Your task to perform on an android device: Go to wifi settings Image 0: 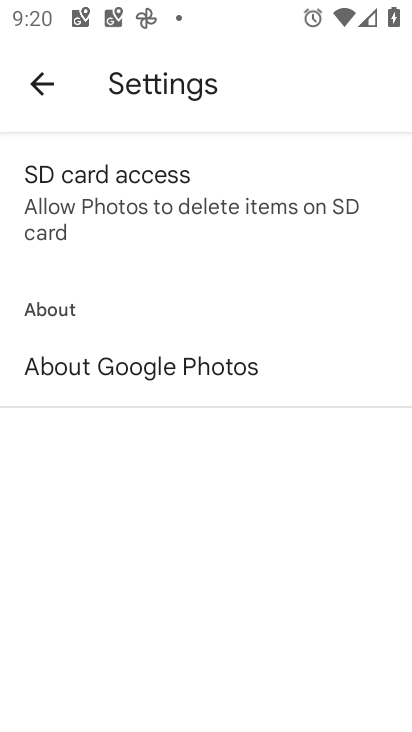
Step 0: press home button
Your task to perform on an android device: Go to wifi settings Image 1: 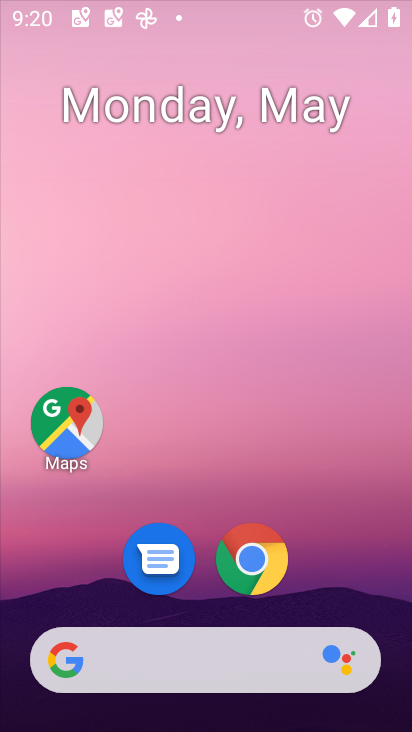
Step 1: drag from (375, 651) to (256, 56)
Your task to perform on an android device: Go to wifi settings Image 2: 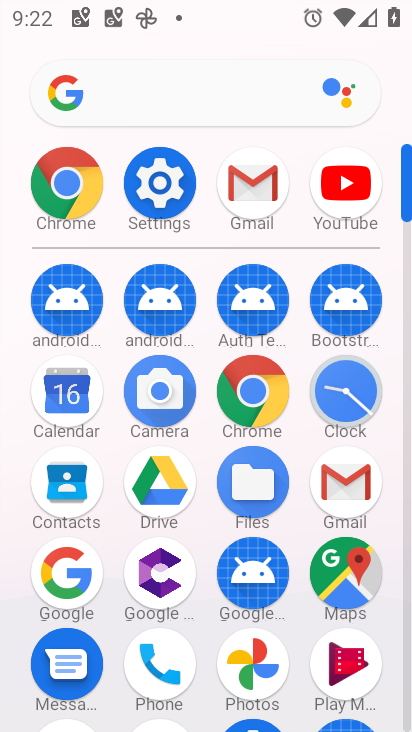
Step 2: click (155, 183)
Your task to perform on an android device: Go to wifi settings Image 3: 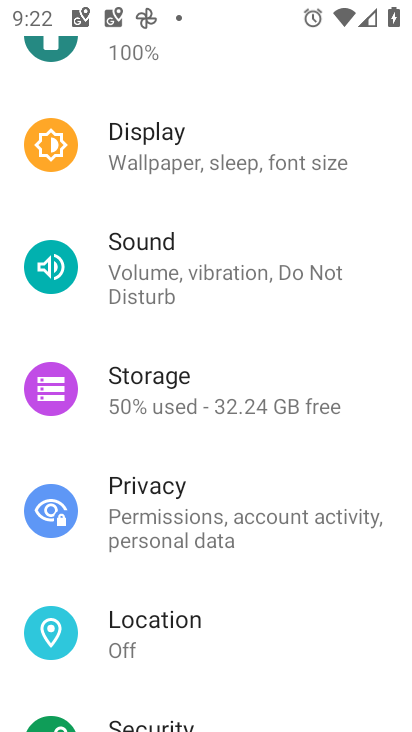
Step 3: drag from (155, 183) to (146, 647)
Your task to perform on an android device: Go to wifi settings Image 4: 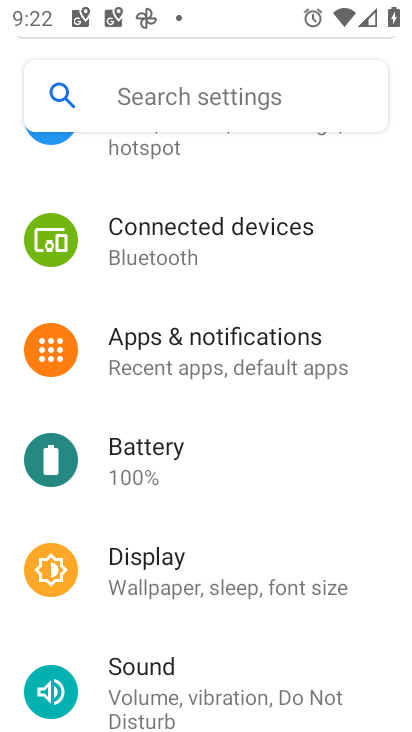
Step 4: drag from (142, 154) to (193, 691)
Your task to perform on an android device: Go to wifi settings Image 5: 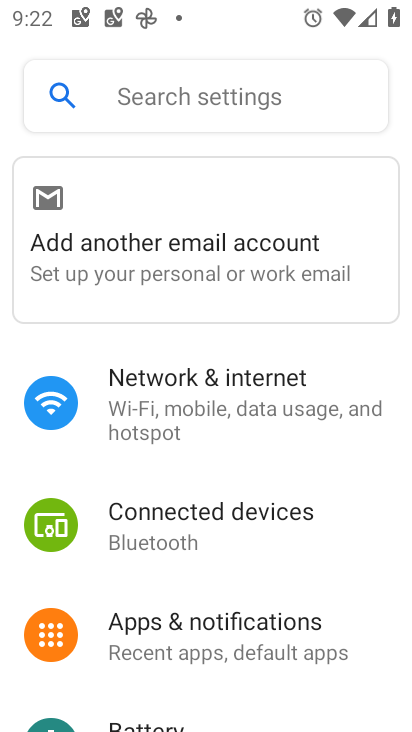
Step 5: click (190, 420)
Your task to perform on an android device: Go to wifi settings Image 6: 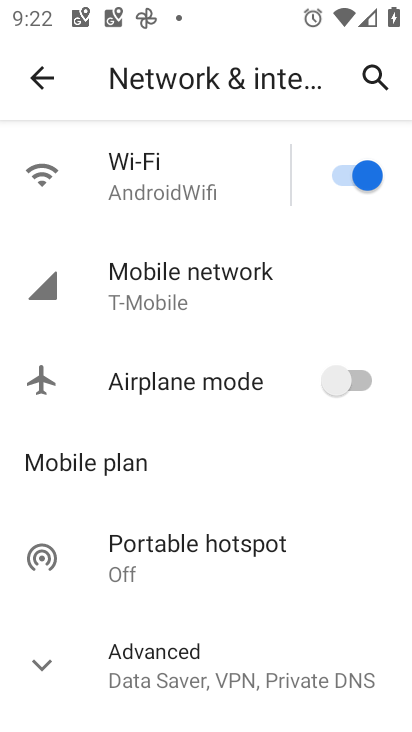
Step 6: click (146, 192)
Your task to perform on an android device: Go to wifi settings Image 7: 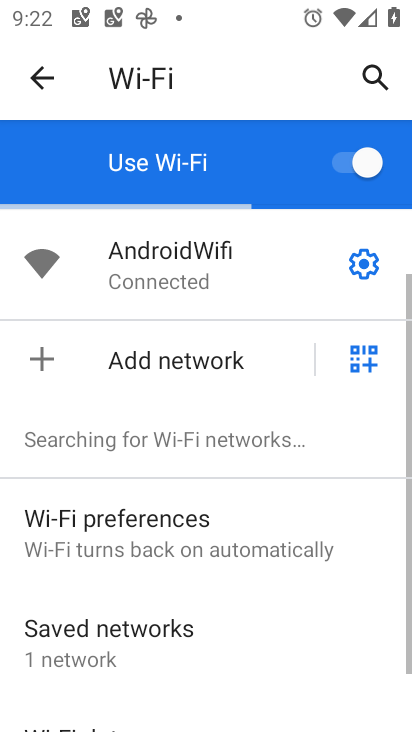
Step 7: task complete